Your task to perform on an android device: Open Amazon Image 0: 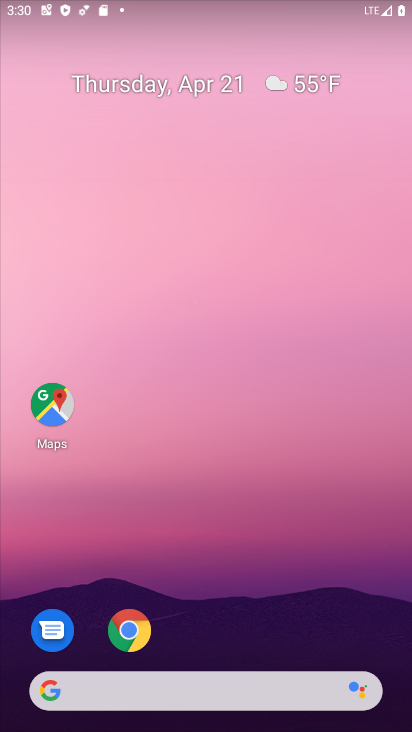
Step 0: click (135, 626)
Your task to perform on an android device: Open Amazon Image 1: 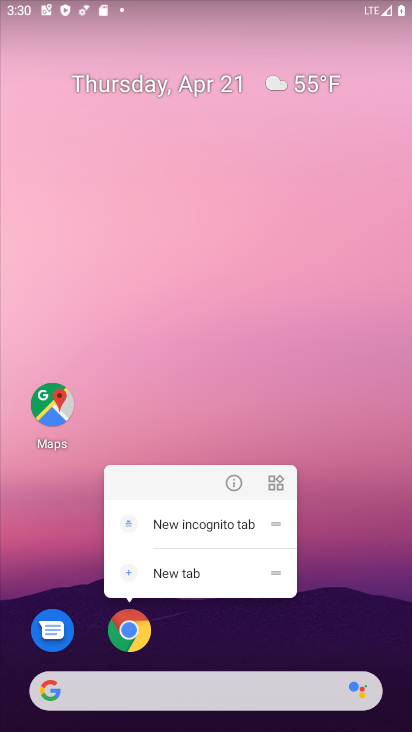
Step 1: click (131, 626)
Your task to perform on an android device: Open Amazon Image 2: 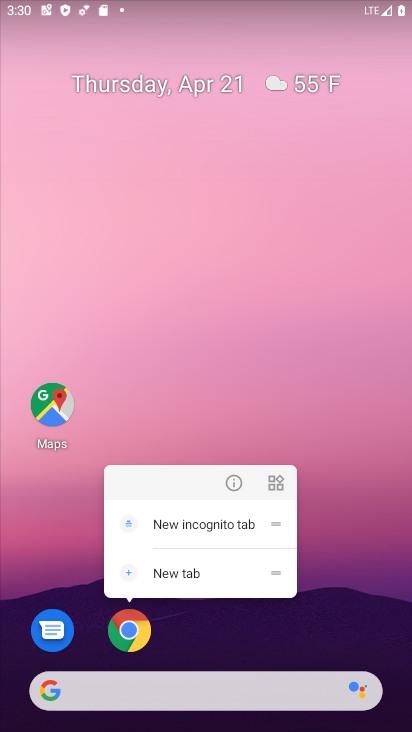
Step 2: click (127, 628)
Your task to perform on an android device: Open Amazon Image 3: 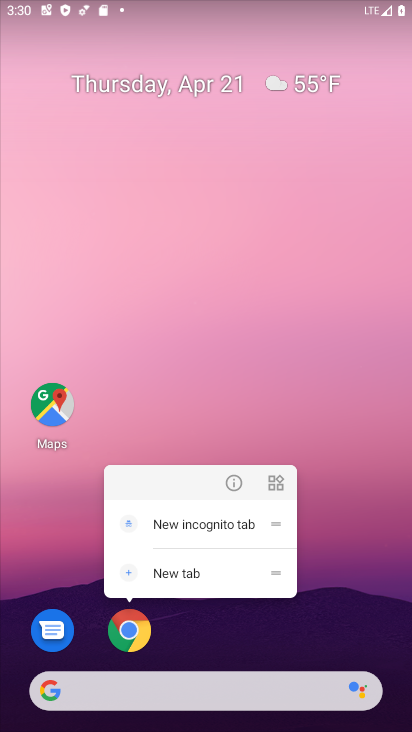
Step 3: click (134, 637)
Your task to perform on an android device: Open Amazon Image 4: 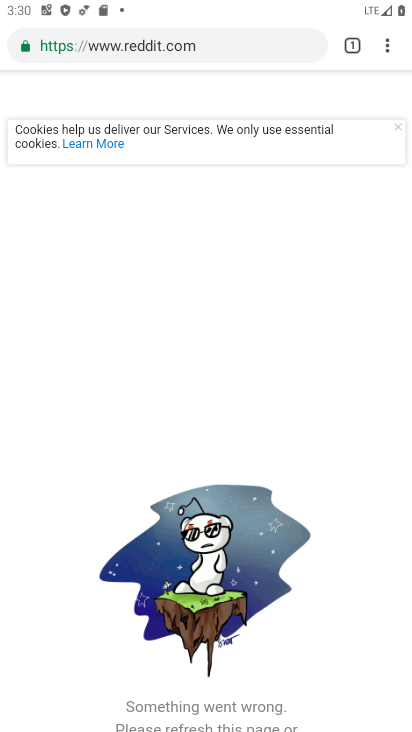
Step 4: click (351, 44)
Your task to perform on an android device: Open Amazon Image 5: 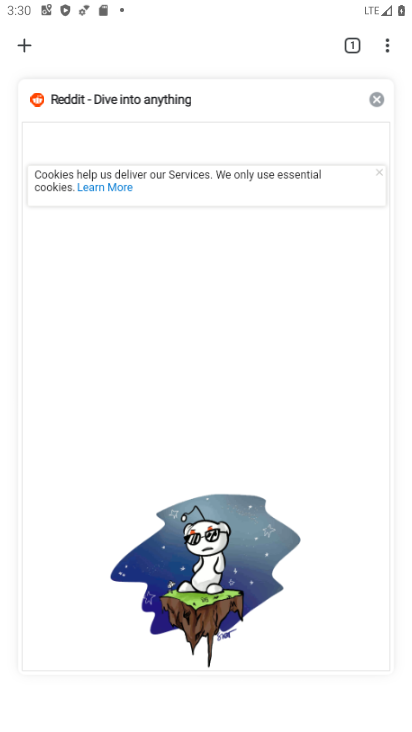
Step 5: click (26, 37)
Your task to perform on an android device: Open Amazon Image 6: 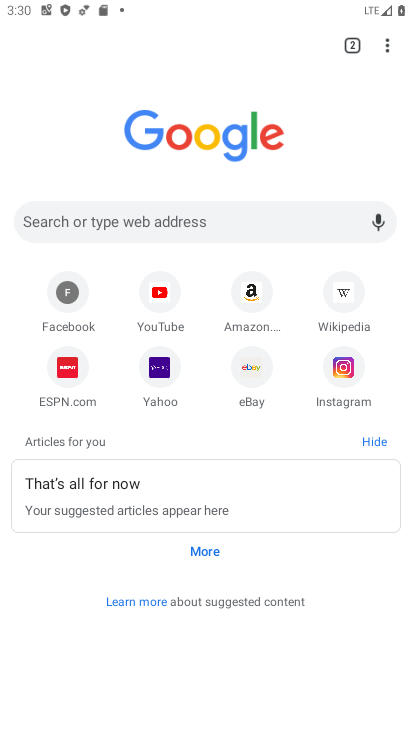
Step 6: click (242, 294)
Your task to perform on an android device: Open Amazon Image 7: 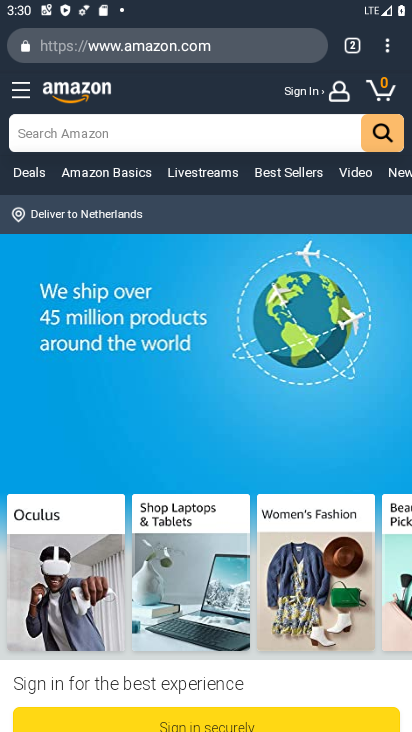
Step 7: task complete